Your task to perform on an android device: See recent photos Image 0: 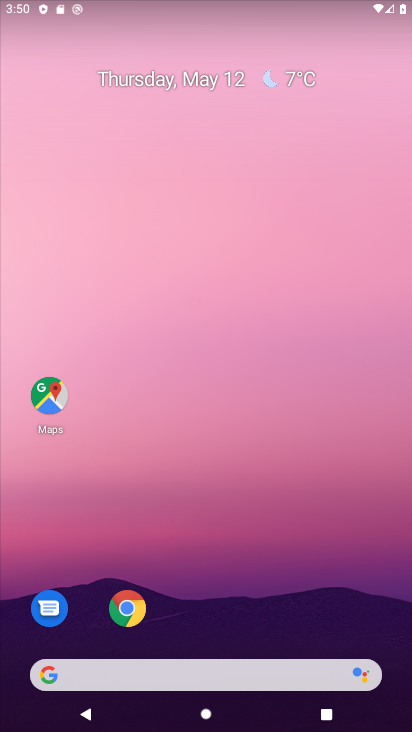
Step 0: drag from (269, 584) to (355, 0)
Your task to perform on an android device: See recent photos Image 1: 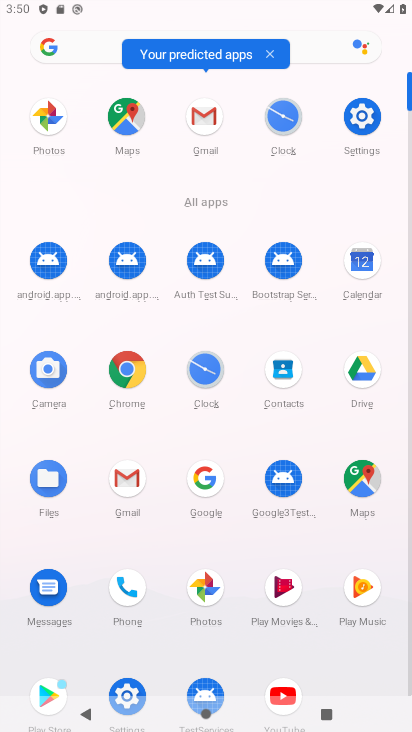
Step 1: click (205, 598)
Your task to perform on an android device: See recent photos Image 2: 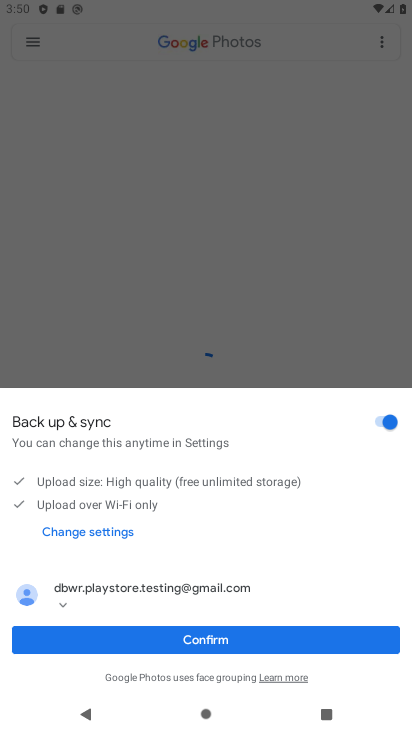
Step 2: click (215, 645)
Your task to perform on an android device: See recent photos Image 3: 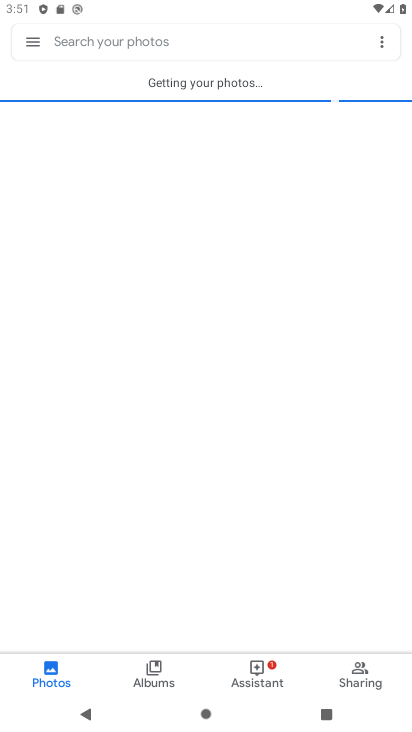
Step 3: click (41, 671)
Your task to perform on an android device: See recent photos Image 4: 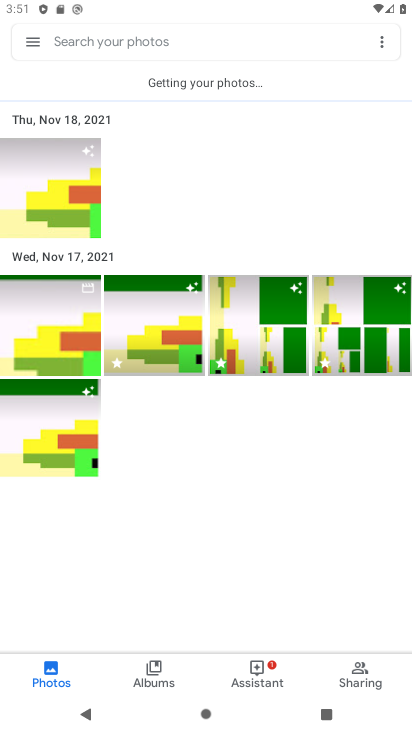
Step 4: task complete